Your task to perform on an android device: change notifications settings Image 0: 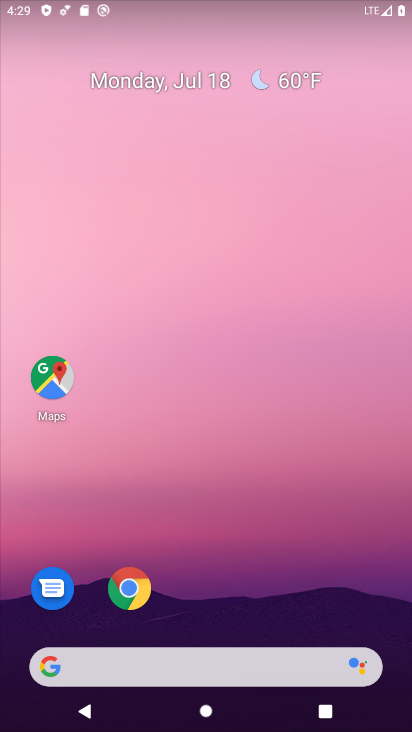
Step 0: drag from (186, 616) to (233, 94)
Your task to perform on an android device: change notifications settings Image 1: 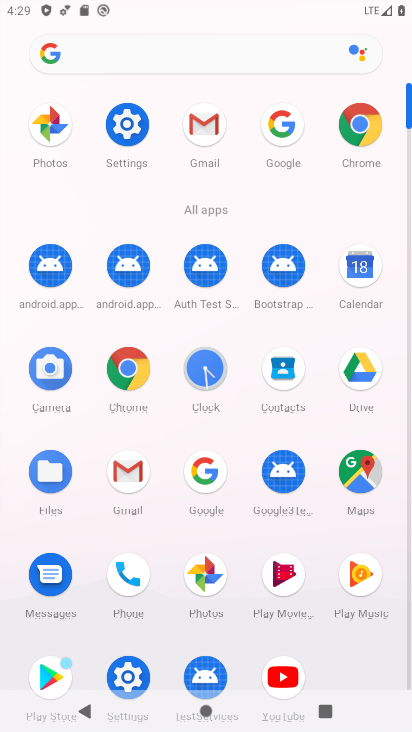
Step 1: click (125, 119)
Your task to perform on an android device: change notifications settings Image 2: 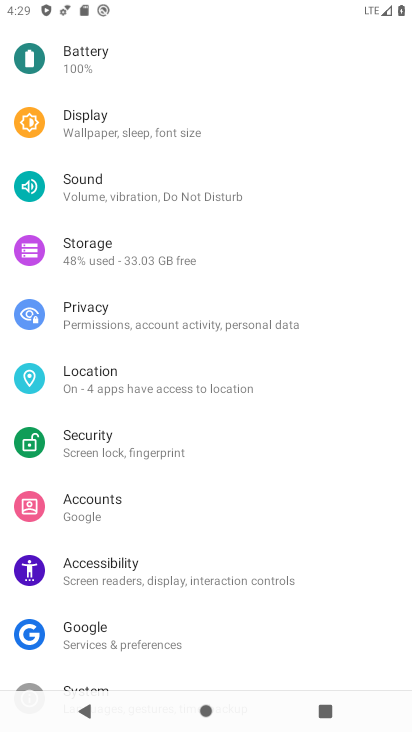
Step 2: drag from (127, 79) to (154, 385)
Your task to perform on an android device: change notifications settings Image 3: 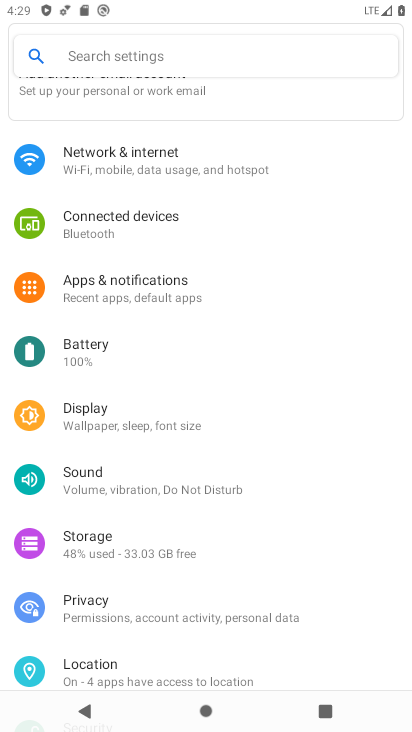
Step 3: click (168, 281)
Your task to perform on an android device: change notifications settings Image 4: 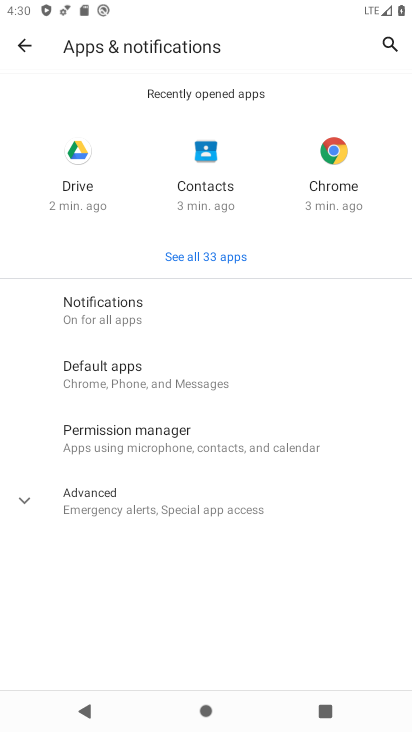
Step 4: click (112, 319)
Your task to perform on an android device: change notifications settings Image 5: 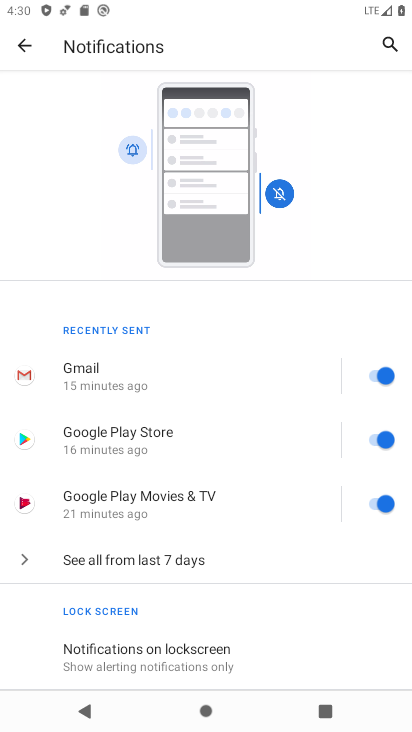
Step 5: drag from (199, 636) to (235, 292)
Your task to perform on an android device: change notifications settings Image 6: 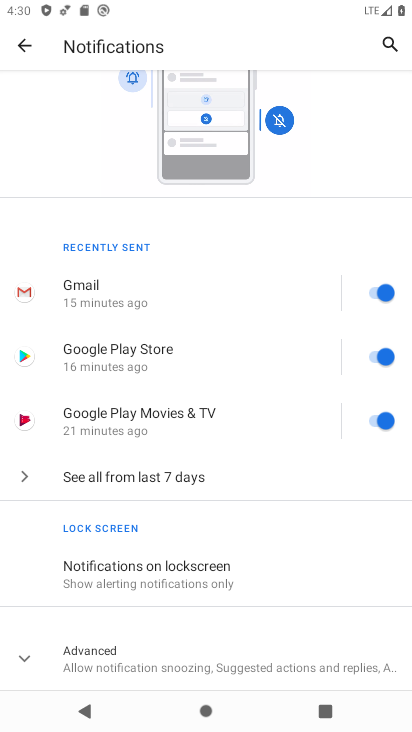
Step 6: click (21, 649)
Your task to perform on an android device: change notifications settings Image 7: 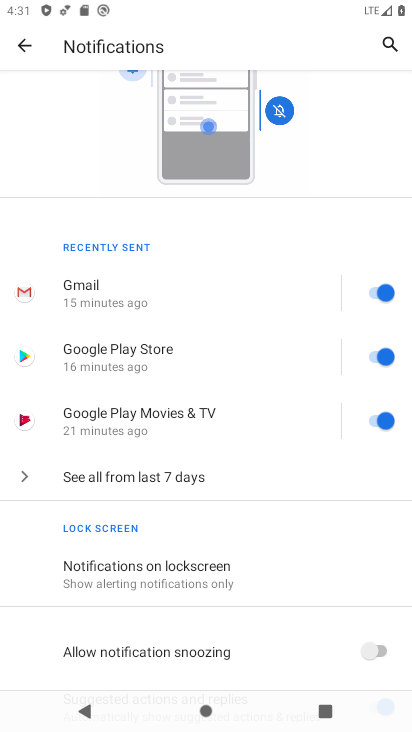
Step 7: task complete